Your task to perform on an android device: delete browsing data in the chrome app Image 0: 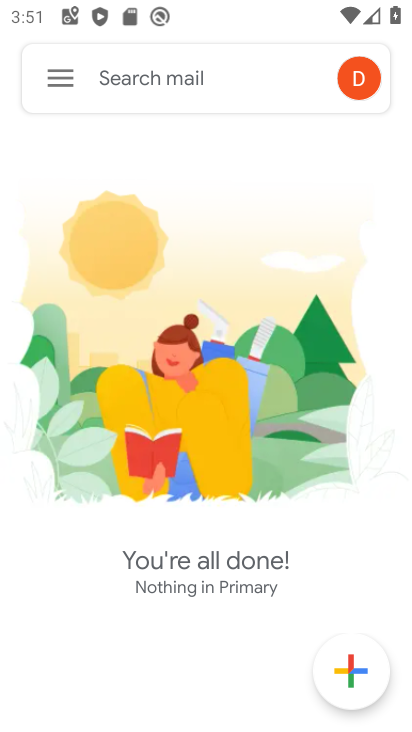
Step 0: press home button
Your task to perform on an android device: delete browsing data in the chrome app Image 1: 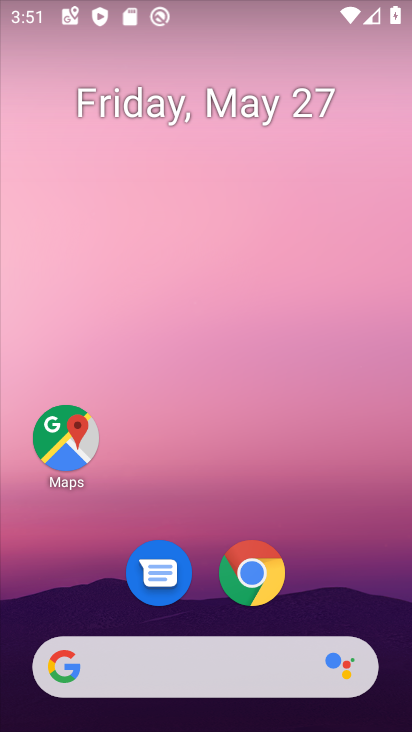
Step 1: click (261, 577)
Your task to perform on an android device: delete browsing data in the chrome app Image 2: 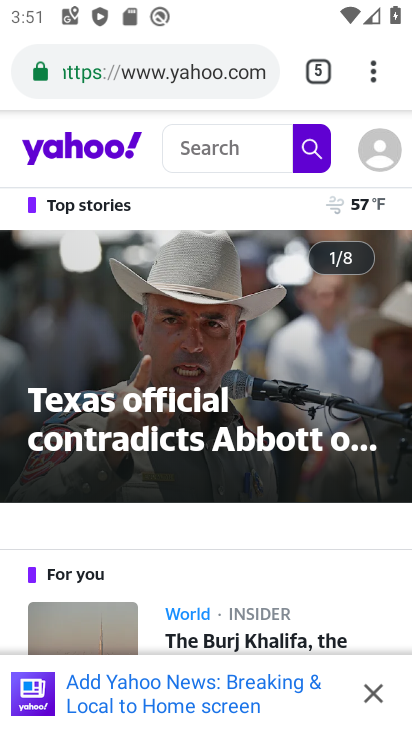
Step 2: click (370, 66)
Your task to perform on an android device: delete browsing data in the chrome app Image 3: 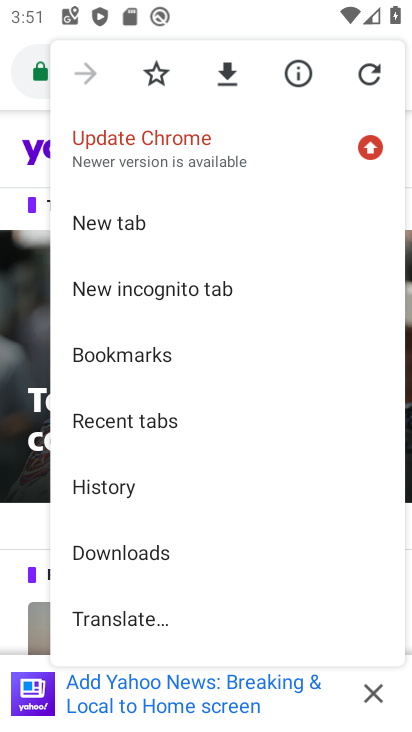
Step 3: click (143, 477)
Your task to perform on an android device: delete browsing data in the chrome app Image 4: 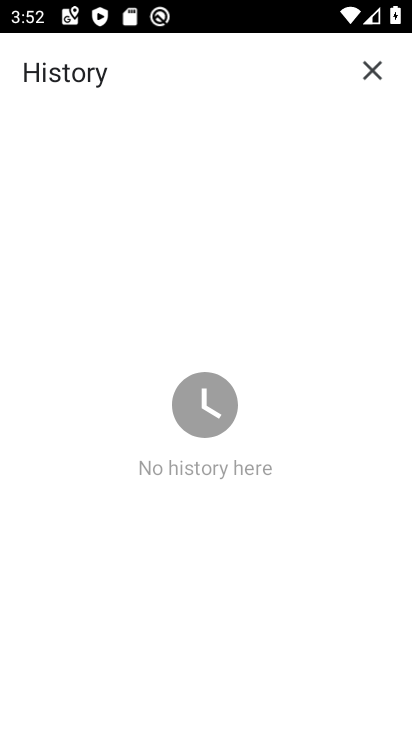
Step 4: task complete